Your task to perform on an android device: Open the phone app and click the voicemail tab. Image 0: 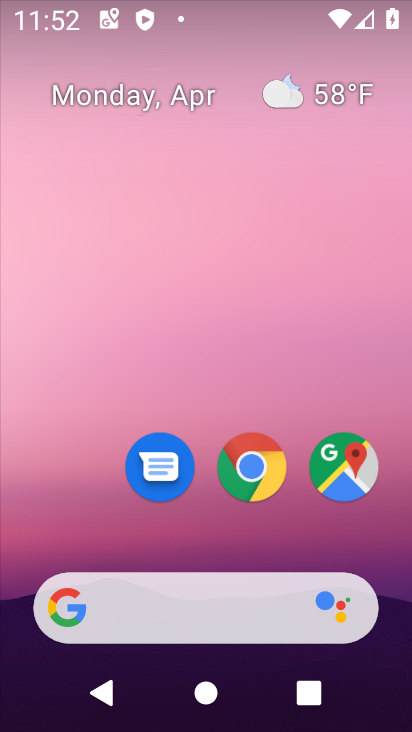
Step 0: drag from (197, 546) to (249, 49)
Your task to perform on an android device: Open the phone app and click the voicemail tab. Image 1: 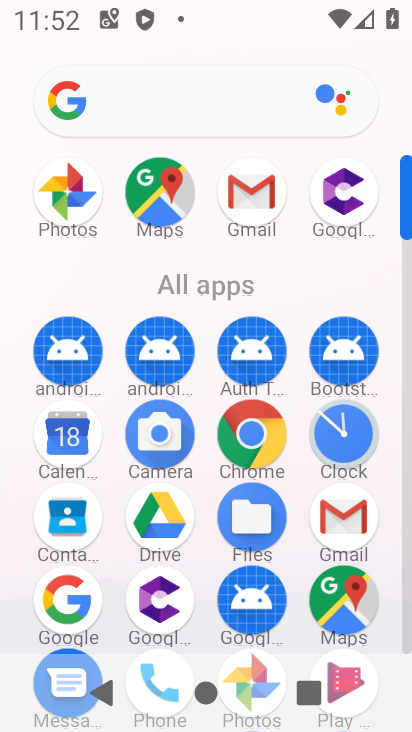
Step 1: drag from (119, 617) to (241, 172)
Your task to perform on an android device: Open the phone app and click the voicemail tab. Image 2: 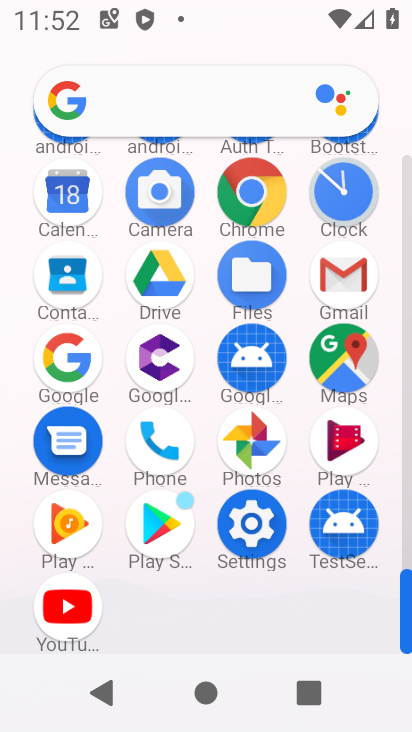
Step 2: click (153, 471)
Your task to perform on an android device: Open the phone app and click the voicemail tab. Image 3: 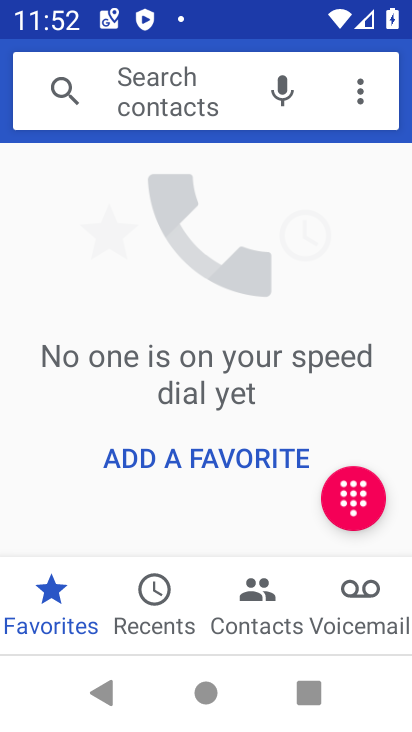
Step 3: click (369, 620)
Your task to perform on an android device: Open the phone app and click the voicemail tab. Image 4: 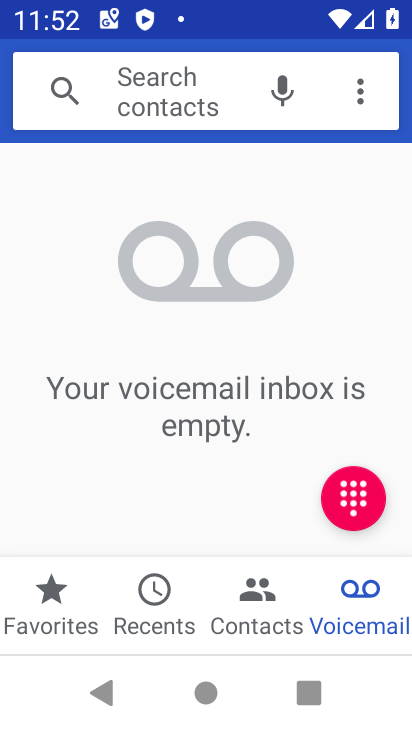
Step 4: task complete